Your task to perform on an android device: Open location settings Image 0: 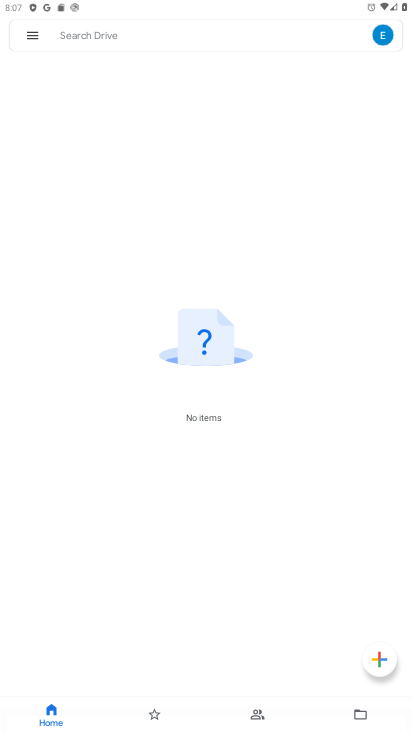
Step 0: press home button
Your task to perform on an android device: Open location settings Image 1: 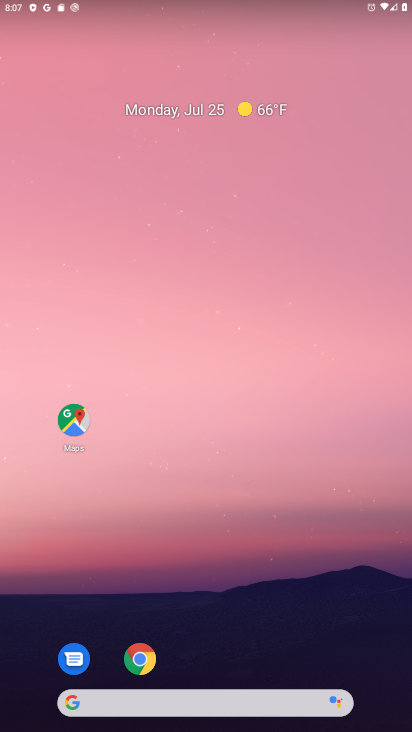
Step 1: drag from (242, 665) to (195, 97)
Your task to perform on an android device: Open location settings Image 2: 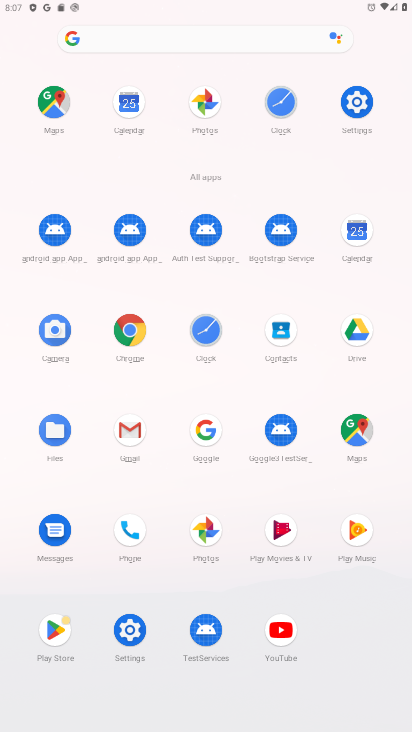
Step 2: click (354, 124)
Your task to perform on an android device: Open location settings Image 3: 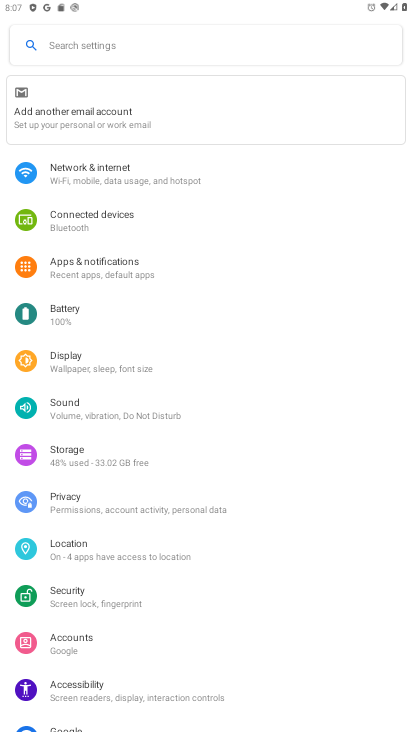
Step 3: click (81, 555)
Your task to perform on an android device: Open location settings Image 4: 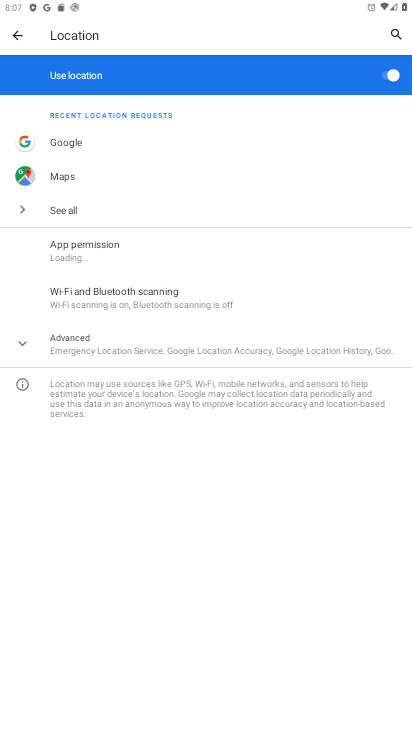
Step 4: click (152, 337)
Your task to perform on an android device: Open location settings Image 5: 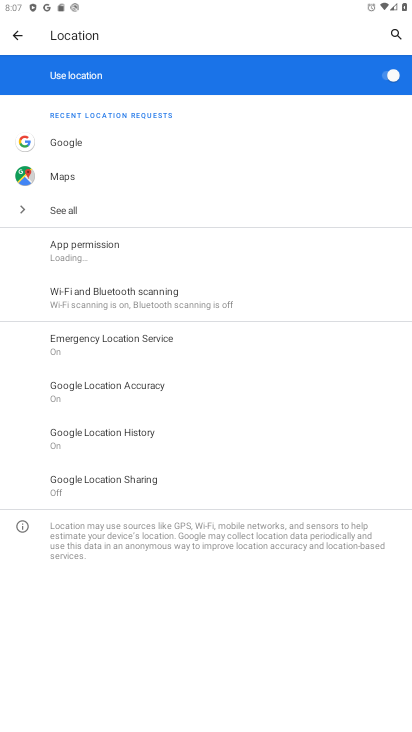
Step 5: task complete